Your task to perform on an android device: Show me the alarms in the clock app Image 0: 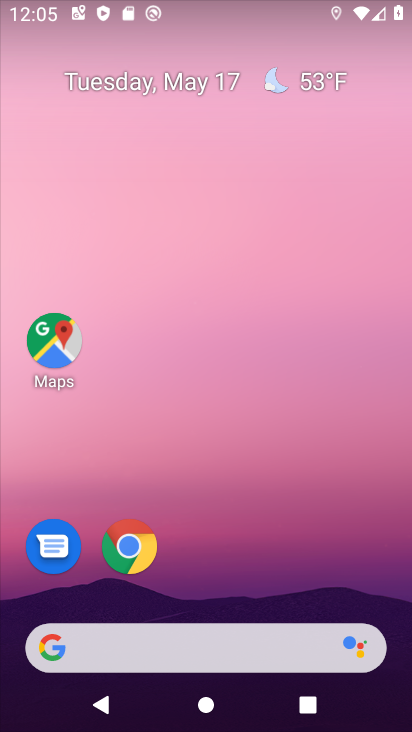
Step 0: drag from (232, 575) to (243, 115)
Your task to perform on an android device: Show me the alarms in the clock app Image 1: 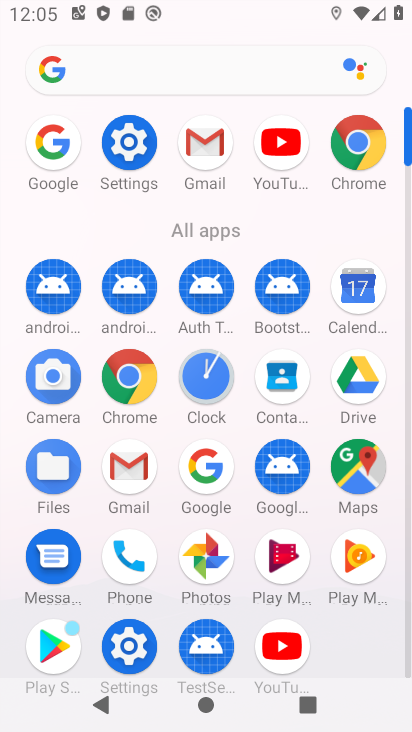
Step 1: click (208, 385)
Your task to perform on an android device: Show me the alarms in the clock app Image 2: 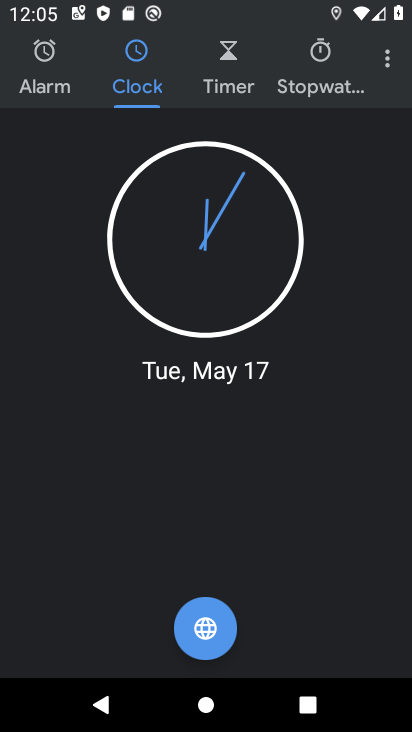
Step 2: click (43, 84)
Your task to perform on an android device: Show me the alarms in the clock app Image 3: 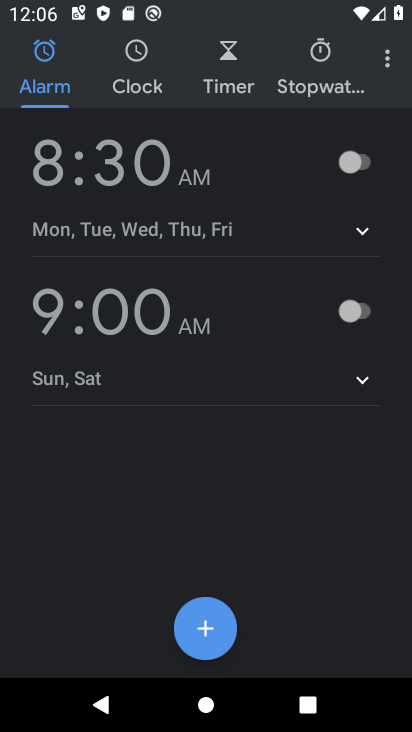
Step 3: task complete